Your task to perform on an android device: Open Chrome and go to settings Image 0: 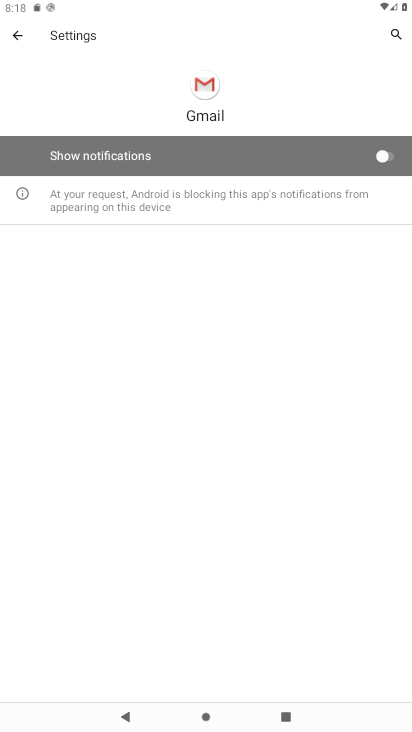
Step 0: press home button
Your task to perform on an android device: Open Chrome and go to settings Image 1: 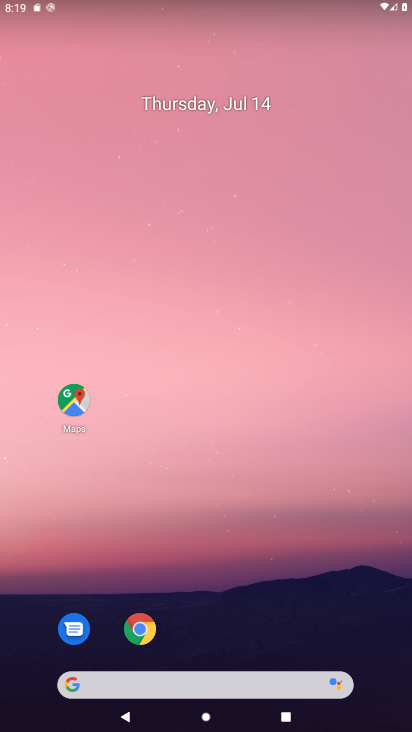
Step 1: click (140, 632)
Your task to perform on an android device: Open Chrome and go to settings Image 2: 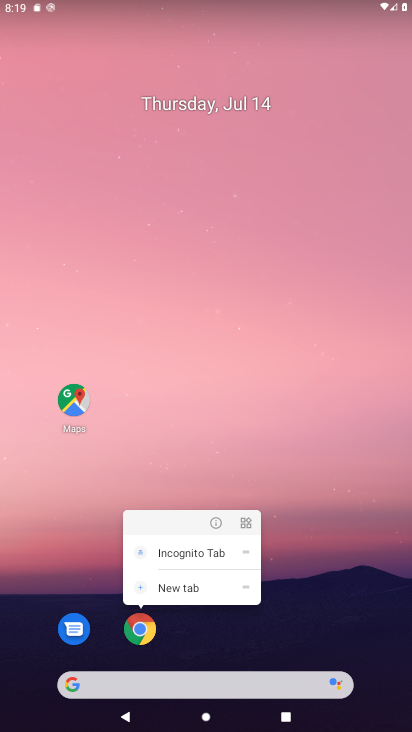
Step 2: click (147, 626)
Your task to perform on an android device: Open Chrome and go to settings Image 3: 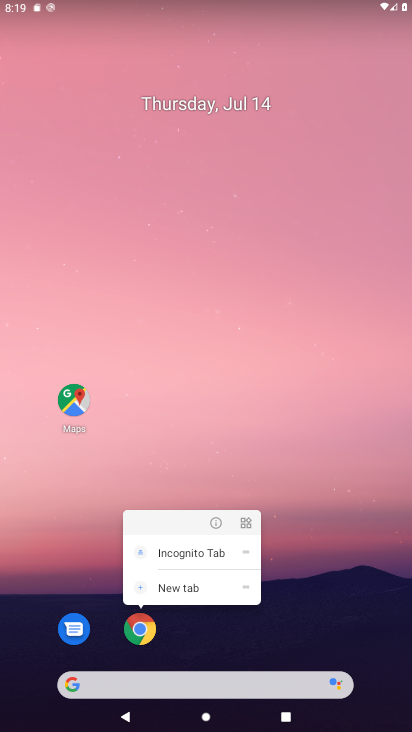
Step 3: click (124, 631)
Your task to perform on an android device: Open Chrome and go to settings Image 4: 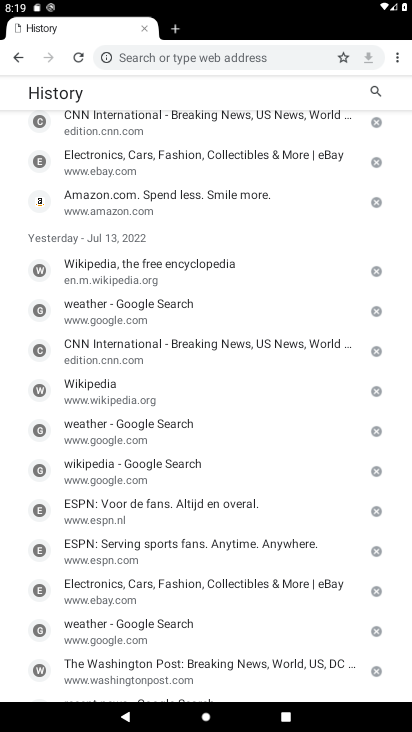
Step 4: click (394, 58)
Your task to perform on an android device: Open Chrome and go to settings Image 5: 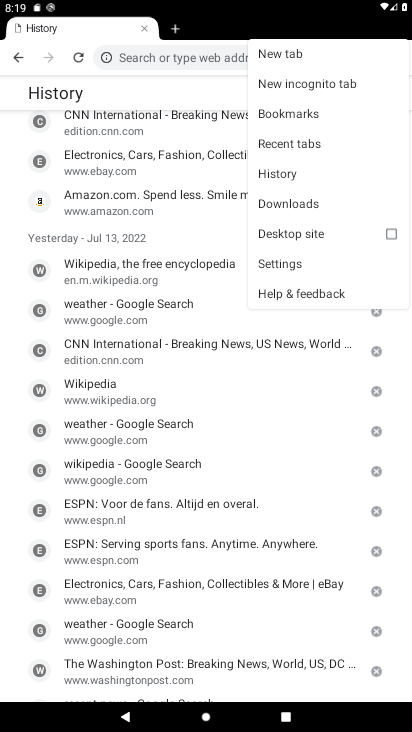
Step 5: click (274, 267)
Your task to perform on an android device: Open Chrome and go to settings Image 6: 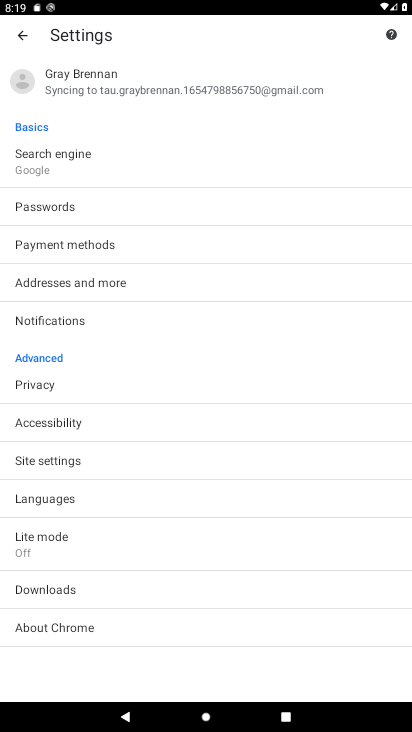
Step 6: task complete